Your task to perform on an android device: delete a single message in the gmail app Image 0: 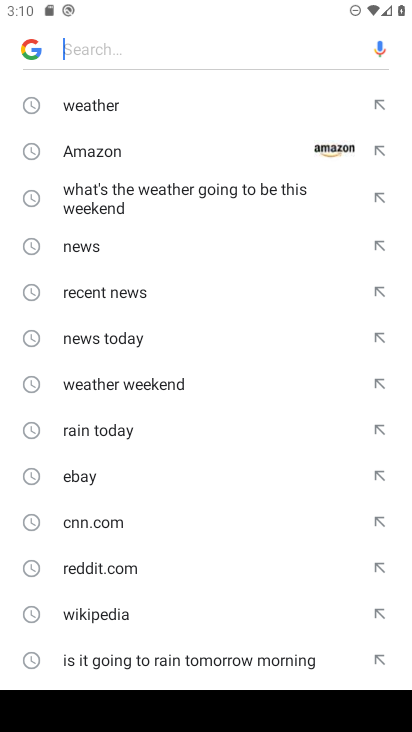
Step 0: press home button
Your task to perform on an android device: delete a single message in the gmail app Image 1: 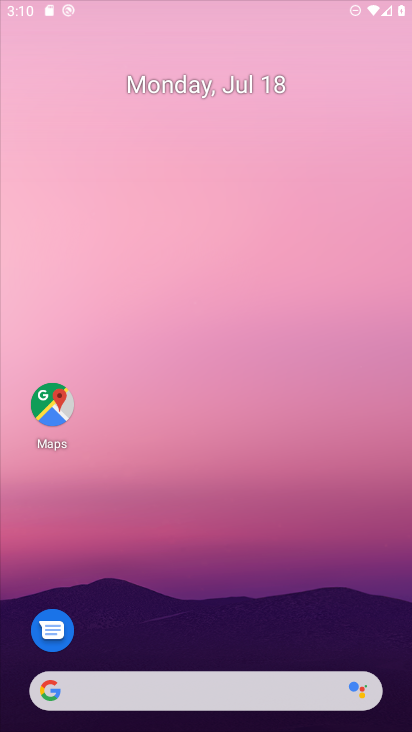
Step 1: drag from (275, 704) to (301, 166)
Your task to perform on an android device: delete a single message in the gmail app Image 2: 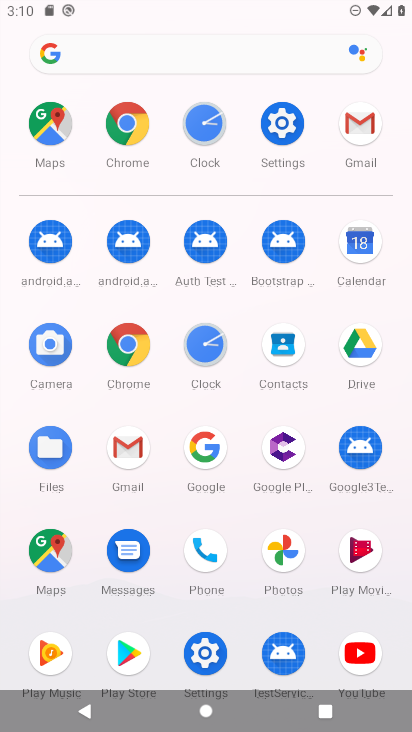
Step 2: click (132, 445)
Your task to perform on an android device: delete a single message in the gmail app Image 3: 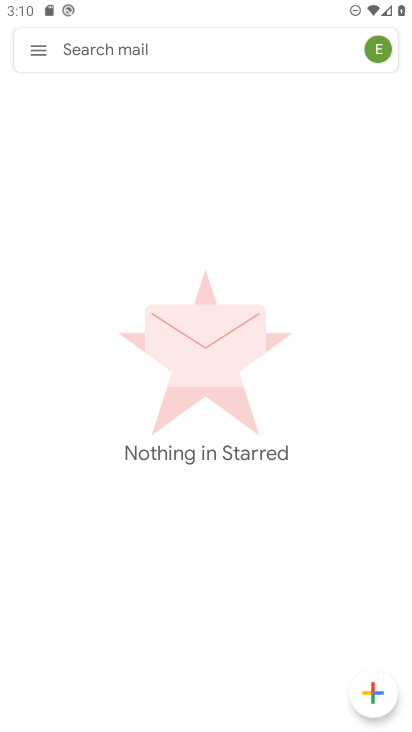
Step 3: click (46, 46)
Your task to perform on an android device: delete a single message in the gmail app Image 4: 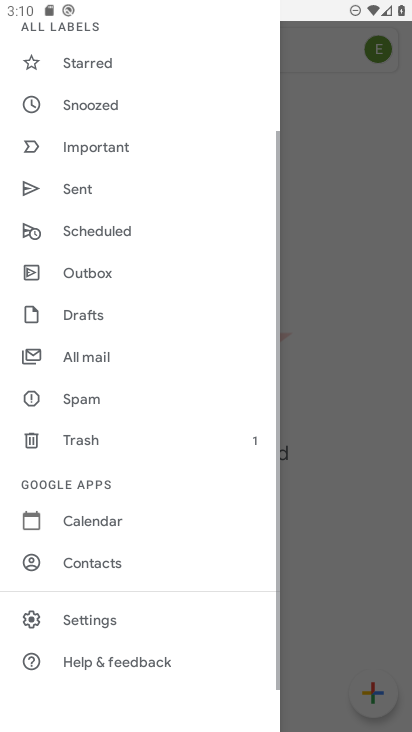
Step 4: drag from (107, 93) to (115, 707)
Your task to perform on an android device: delete a single message in the gmail app Image 5: 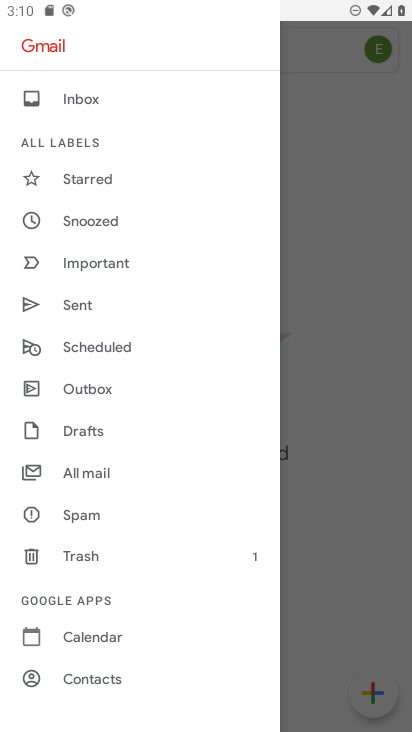
Step 5: click (104, 97)
Your task to perform on an android device: delete a single message in the gmail app Image 6: 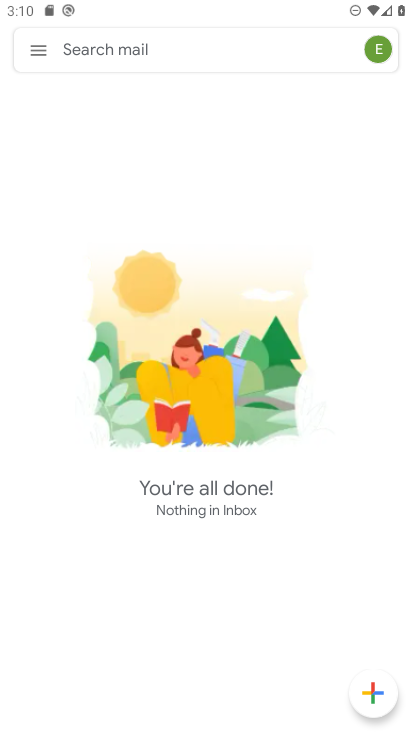
Step 6: task complete